Your task to perform on an android device: Go to network settings Image 0: 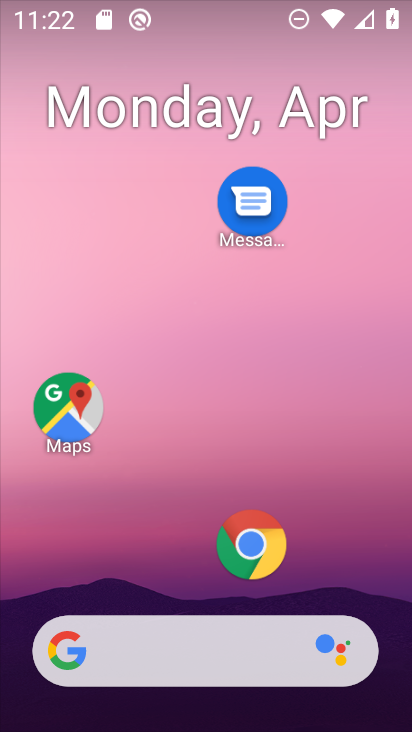
Step 0: drag from (192, 590) to (216, 126)
Your task to perform on an android device: Go to network settings Image 1: 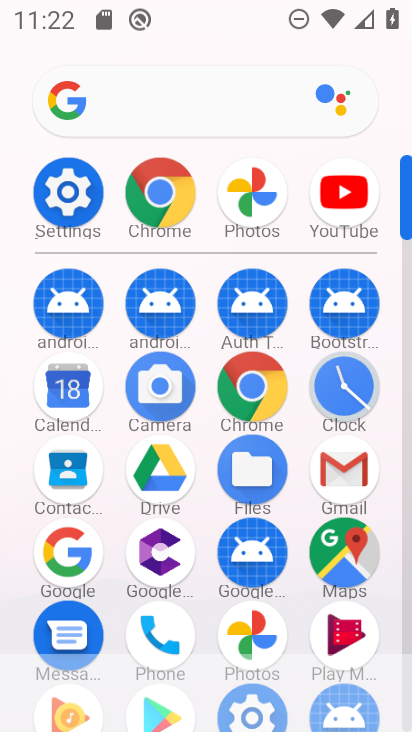
Step 1: click (66, 189)
Your task to perform on an android device: Go to network settings Image 2: 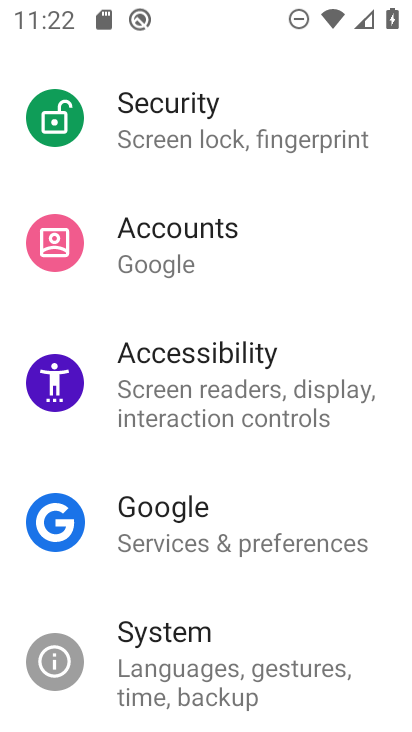
Step 2: drag from (213, 131) to (224, 659)
Your task to perform on an android device: Go to network settings Image 3: 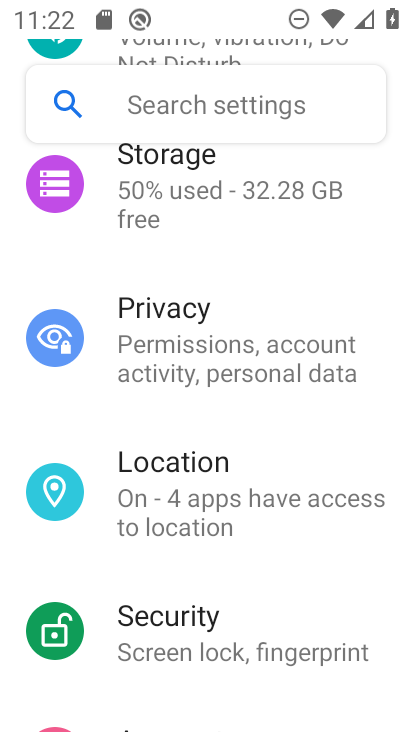
Step 3: drag from (197, 185) to (210, 701)
Your task to perform on an android device: Go to network settings Image 4: 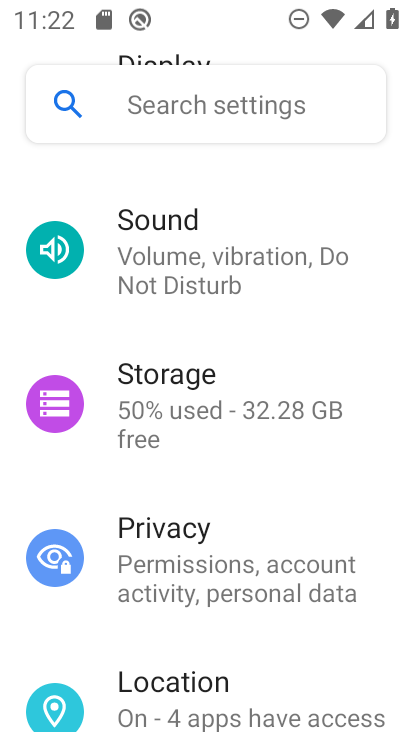
Step 4: drag from (229, 218) to (264, 730)
Your task to perform on an android device: Go to network settings Image 5: 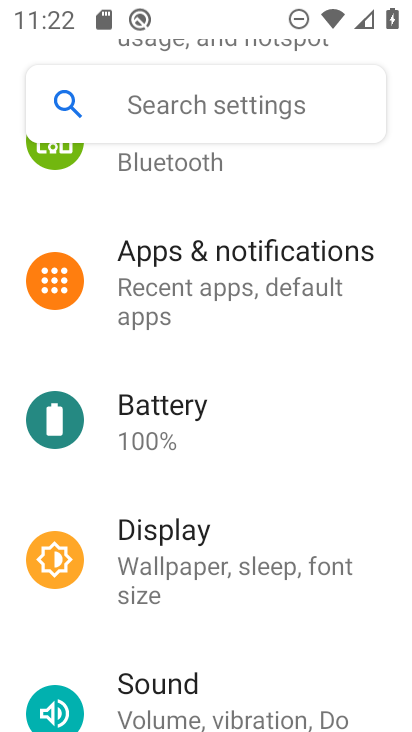
Step 5: drag from (243, 201) to (280, 729)
Your task to perform on an android device: Go to network settings Image 6: 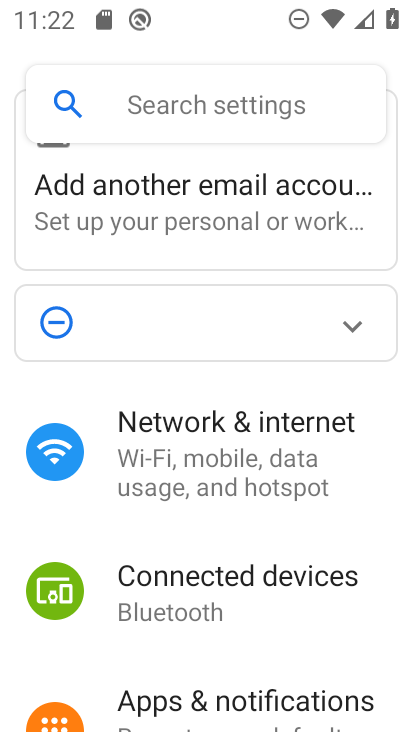
Step 6: click (211, 476)
Your task to perform on an android device: Go to network settings Image 7: 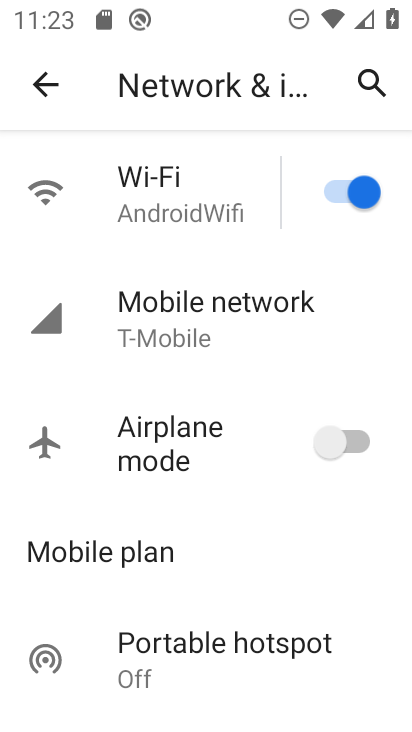
Step 7: drag from (190, 601) to (211, 236)
Your task to perform on an android device: Go to network settings Image 8: 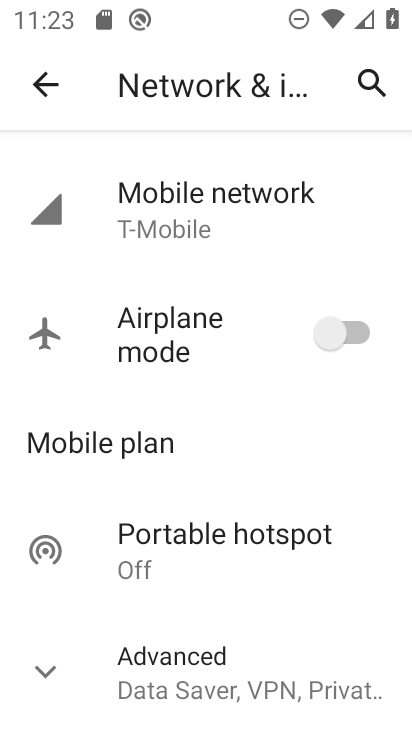
Step 8: click (91, 660)
Your task to perform on an android device: Go to network settings Image 9: 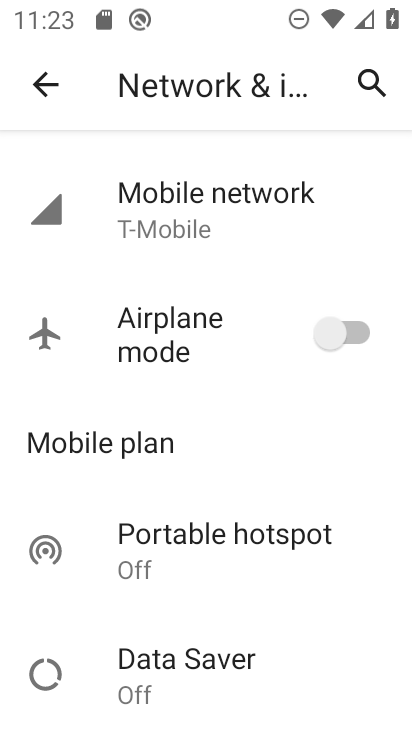
Step 9: task complete